Your task to perform on an android device: open app "Pinterest" (install if not already installed) and go to login screen Image 0: 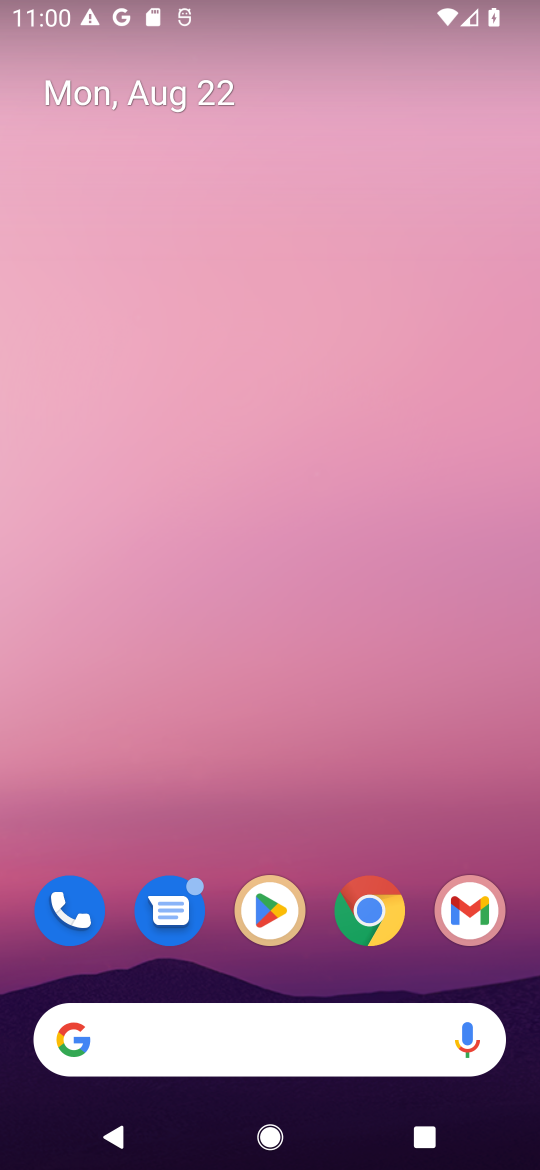
Step 0: click (260, 893)
Your task to perform on an android device: open app "Pinterest" (install if not already installed) and go to login screen Image 1: 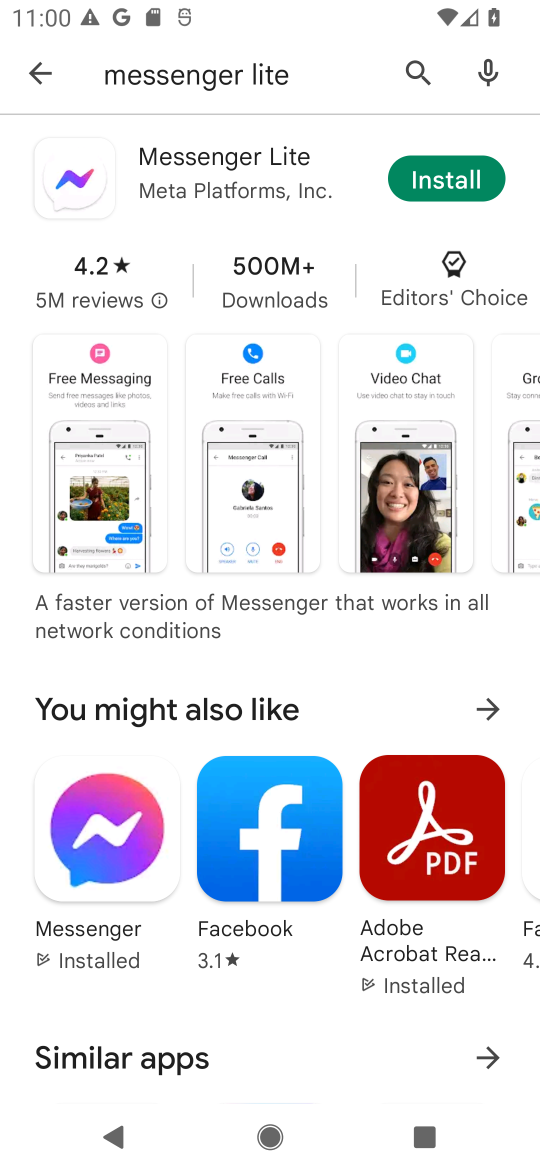
Step 1: click (411, 54)
Your task to perform on an android device: open app "Pinterest" (install if not already installed) and go to login screen Image 2: 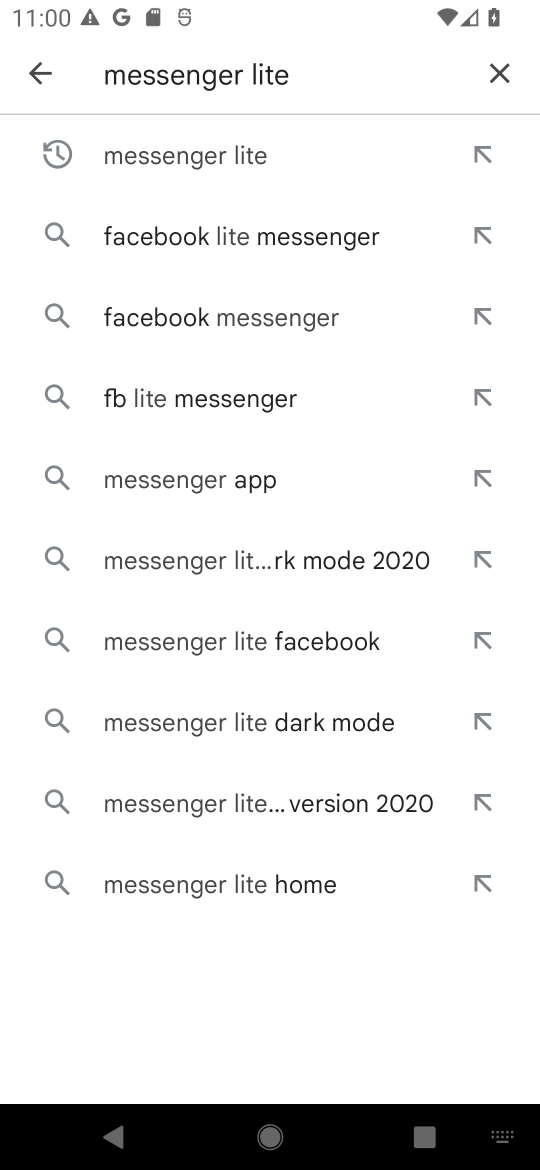
Step 2: click (485, 64)
Your task to perform on an android device: open app "Pinterest" (install if not already installed) and go to login screen Image 3: 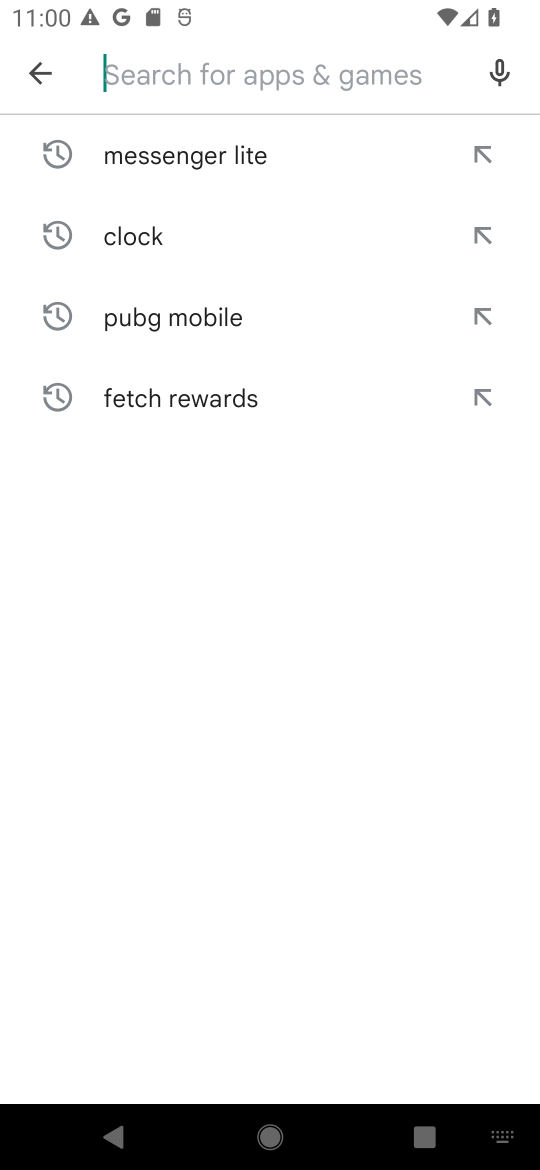
Step 3: type "Pinterest"
Your task to perform on an android device: open app "Pinterest" (install if not already installed) and go to login screen Image 4: 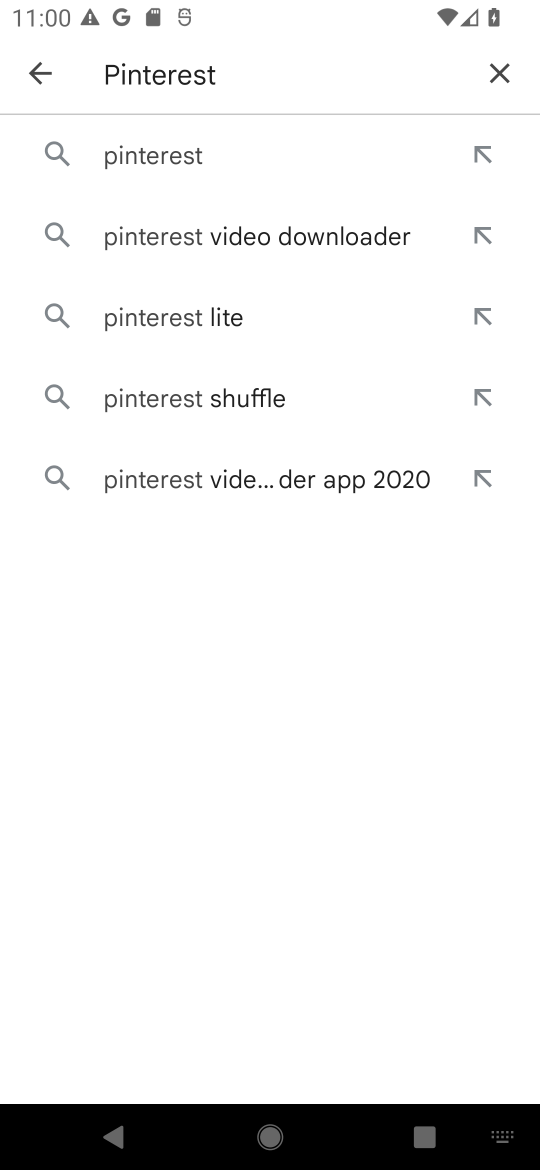
Step 4: click (164, 129)
Your task to perform on an android device: open app "Pinterest" (install if not already installed) and go to login screen Image 5: 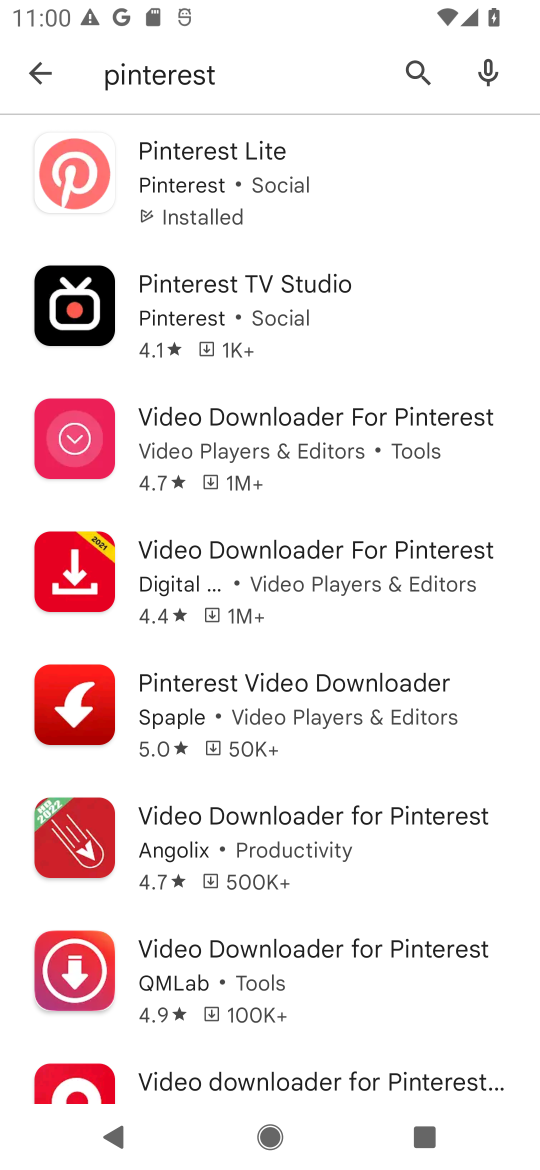
Step 5: click (303, 169)
Your task to perform on an android device: open app "Pinterest" (install if not already installed) and go to login screen Image 6: 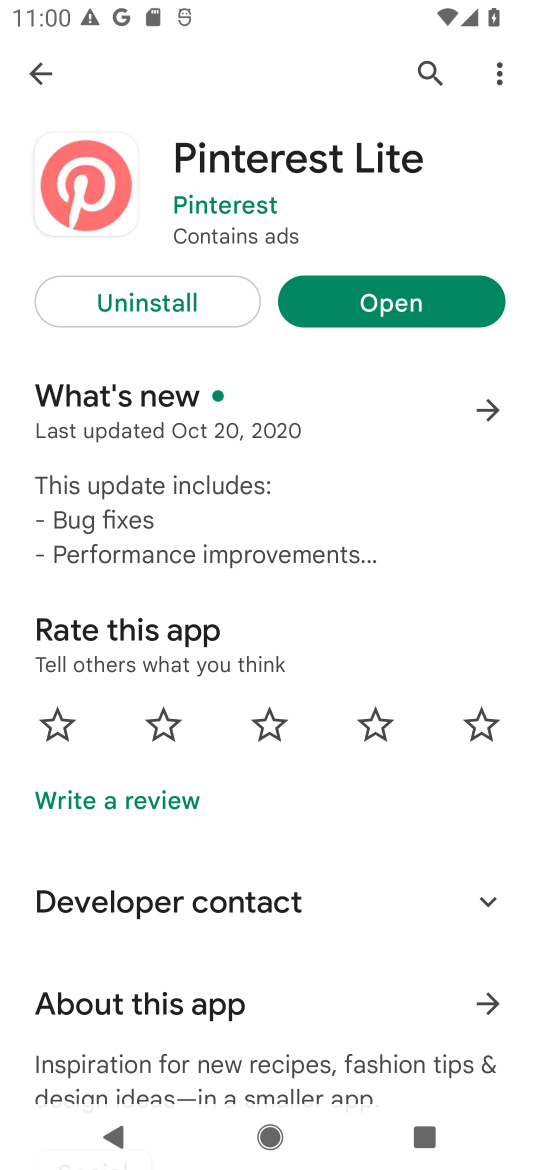
Step 6: click (400, 306)
Your task to perform on an android device: open app "Pinterest" (install if not already installed) and go to login screen Image 7: 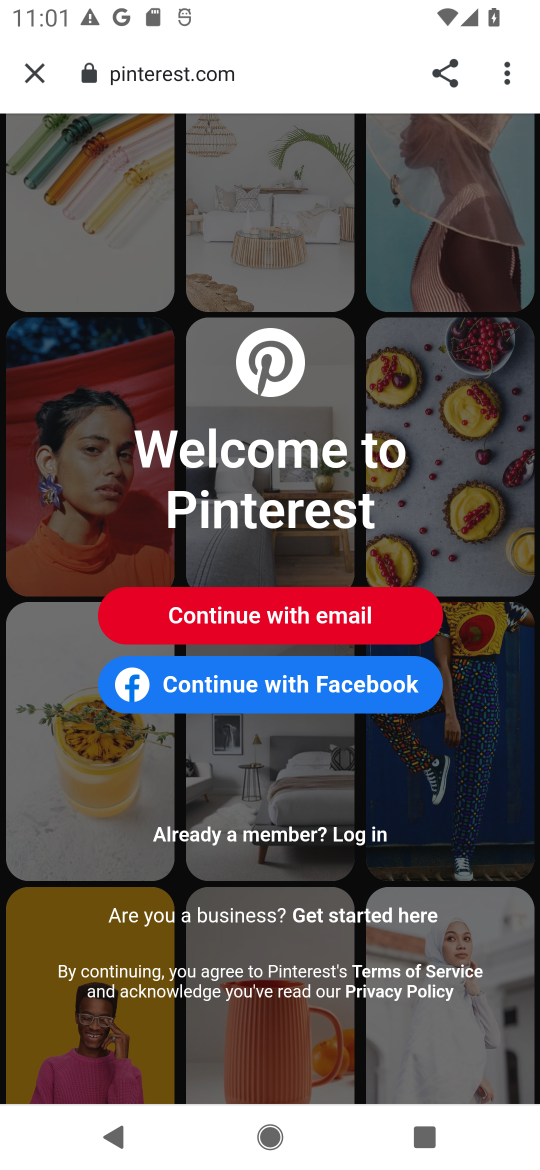
Step 7: task complete